Your task to perform on an android device: Go to privacy settings Image 0: 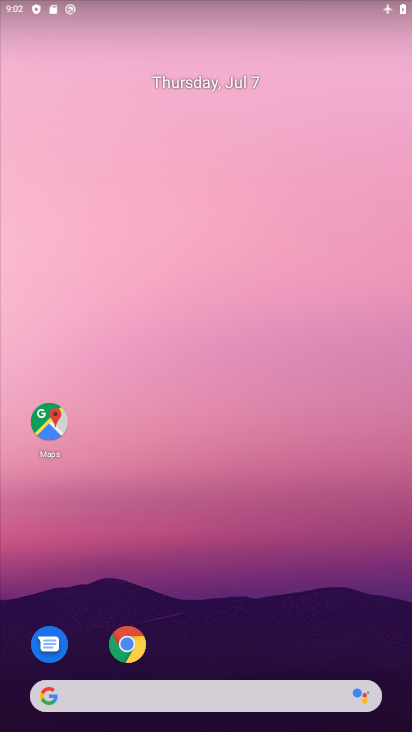
Step 0: click (246, 588)
Your task to perform on an android device: Go to privacy settings Image 1: 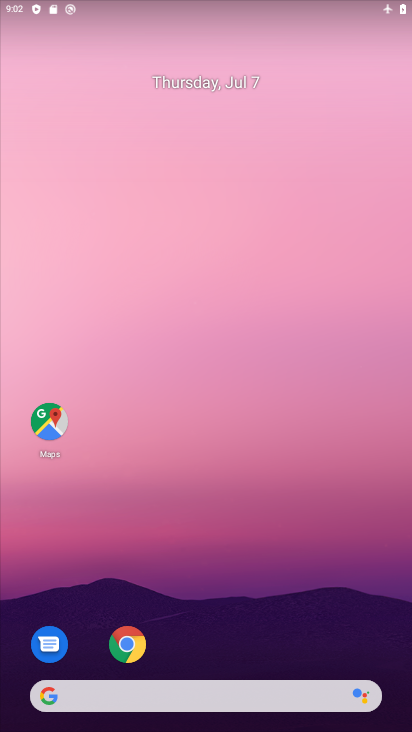
Step 1: drag from (246, 582) to (253, 142)
Your task to perform on an android device: Go to privacy settings Image 2: 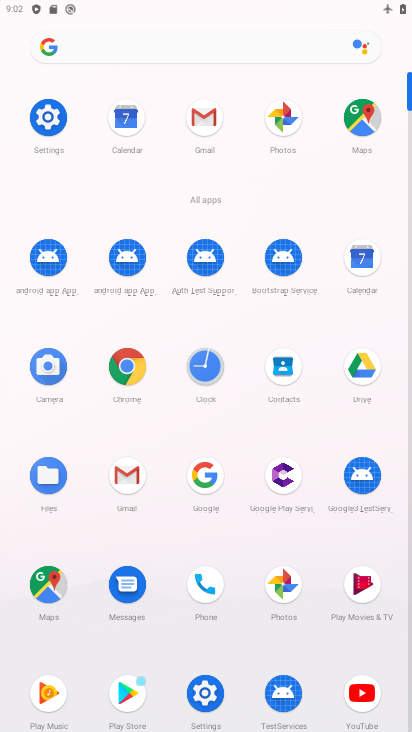
Step 2: click (56, 112)
Your task to perform on an android device: Go to privacy settings Image 3: 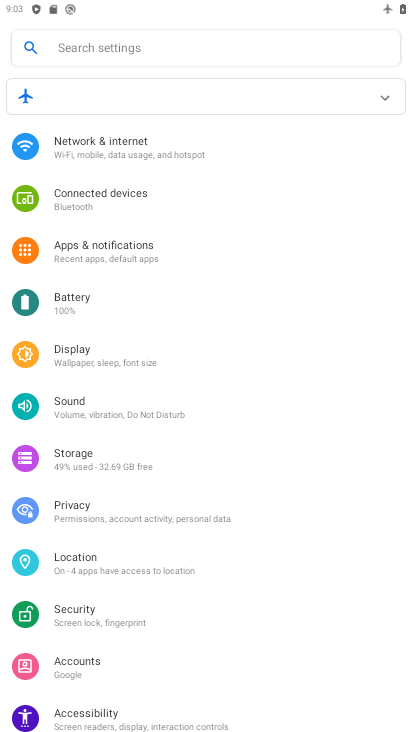
Step 3: drag from (120, 645) to (148, 207)
Your task to perform on an android device: Go to privacy settings Image 4: 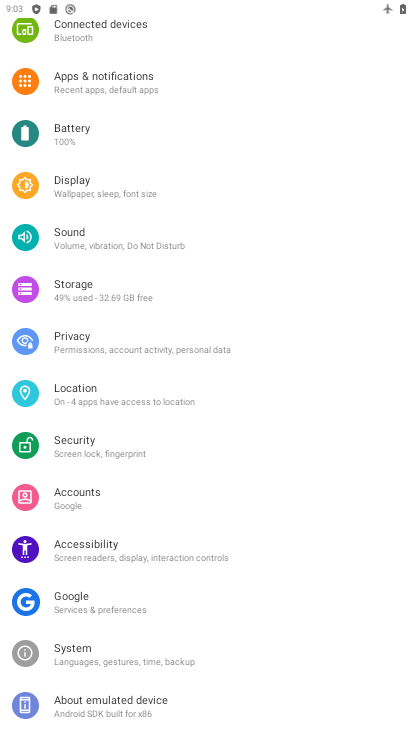
Step 4: click (85, 351)
Your task to perform on an android device: Go to privacy settings Image 5: 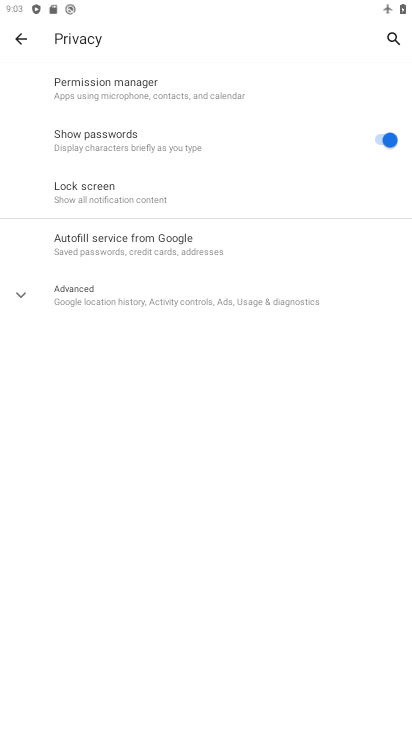
Step 5: task complete